Your task to perform on an android device: change alarm snooze length Image 0: 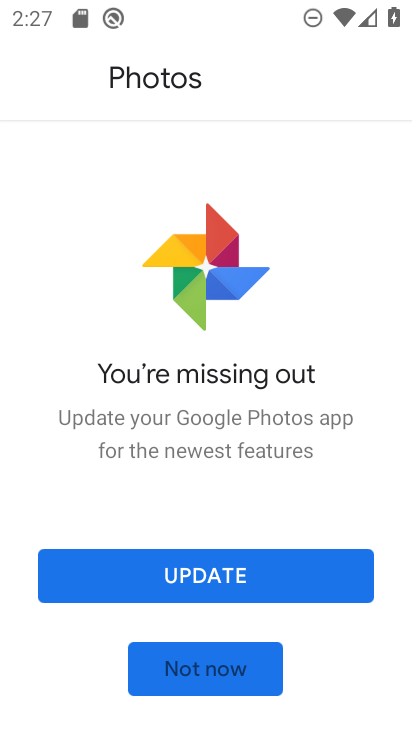
Step 0: press home button
Your task to perform on an android device: change alarm snooze length Image 1: 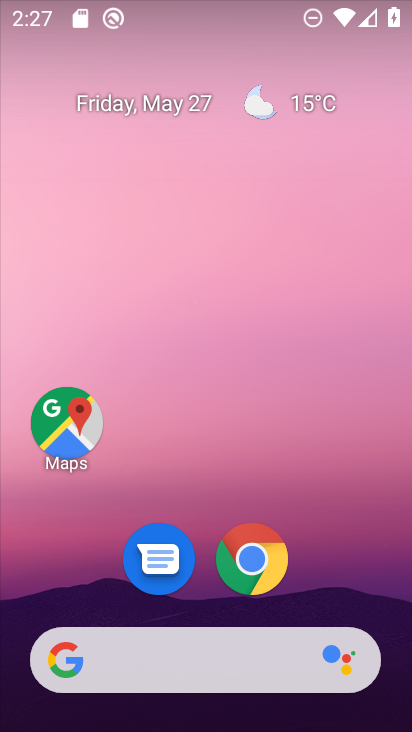
Step 1: drag from (298, 635) to (314, 44)
Your task to perform on an android device: change alarm snooze length Image 2: 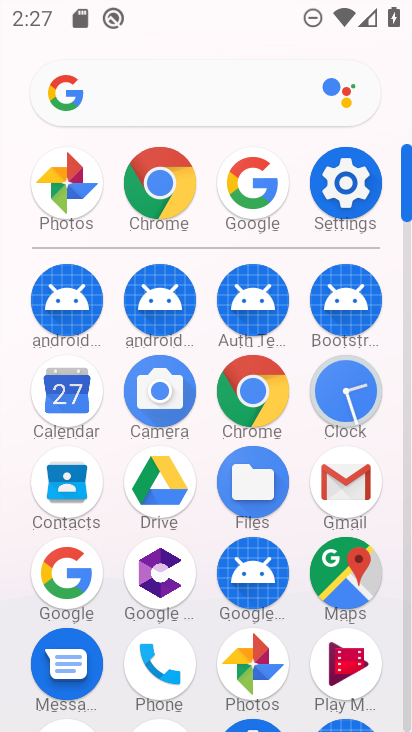
Step 2: click (344, 388)
Your task to perform on an android device: change alarm snooze length Image 3: 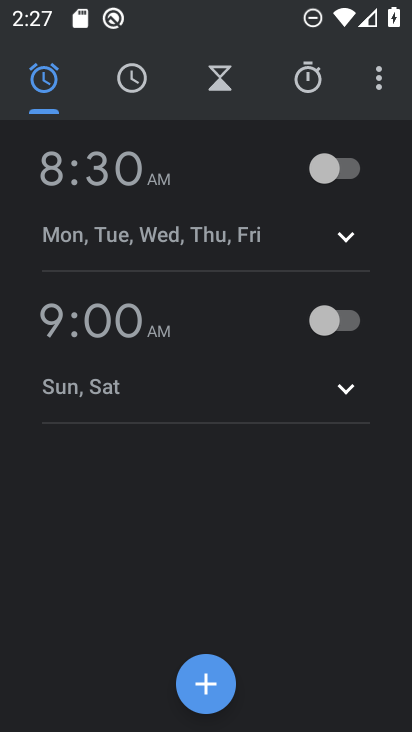
Step 3: click (370, 89)
Your task to perform on an android device: change alarm snooze length Image 4: 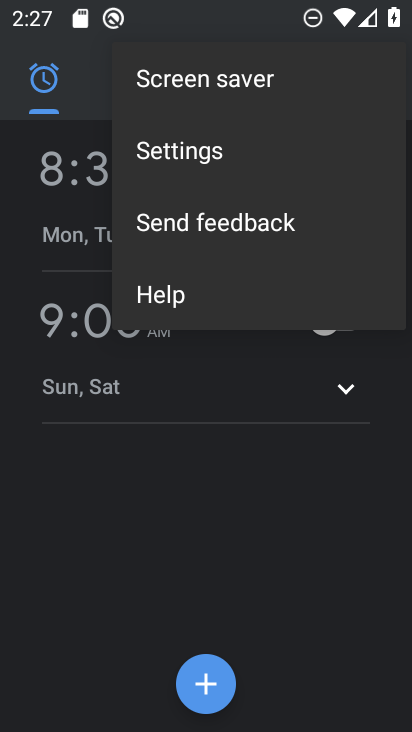
Step 4: click (248, 145)
Your task to perform on an android device: change alarm snooze length Image 5: 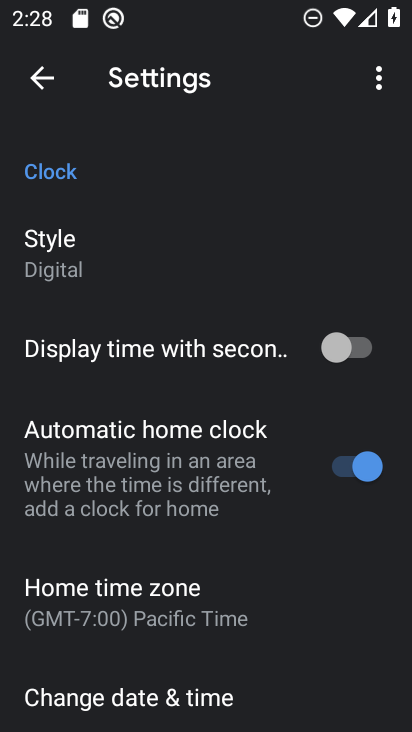
Step 5: drag from (265, 614) to (331, 61)
Your task to perform on an android device: change alarm snooze length Image 6: 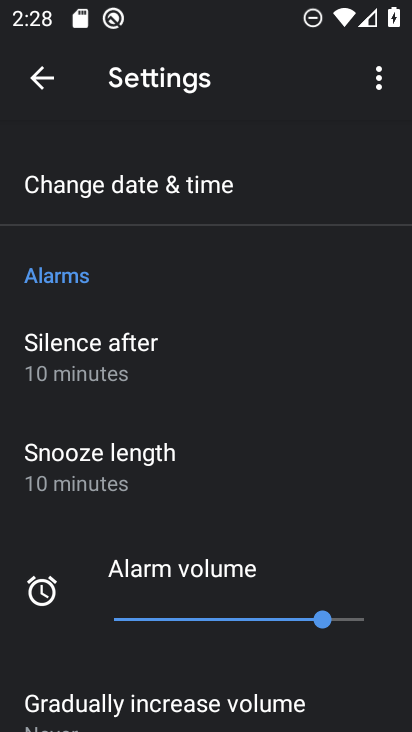
Step 6: click (211, 461)
Your task to perform on an android device: change alarm snooze length Image 7: 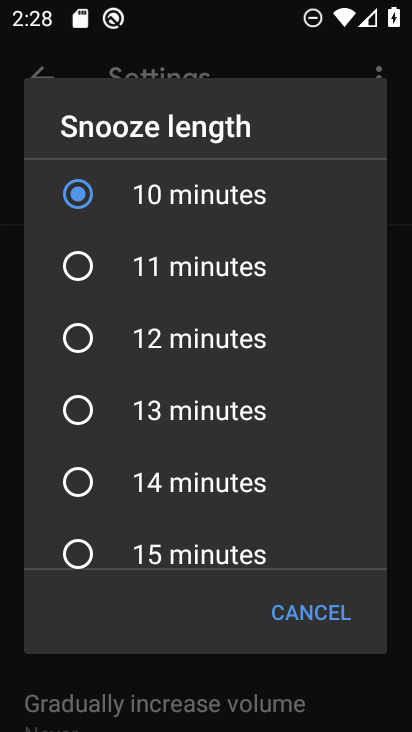
Step 7: click (70, 255)
Your task to perform on an android device: change alarm snooze length Image 8: 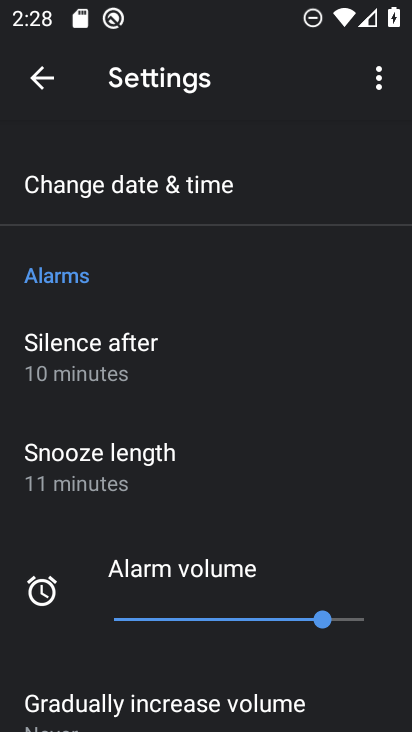
Step 8: task complete